Your task to perform on an android device: View the shopping cart on costco.com. Add "usb-c" to the cart on costco.com Image 0: 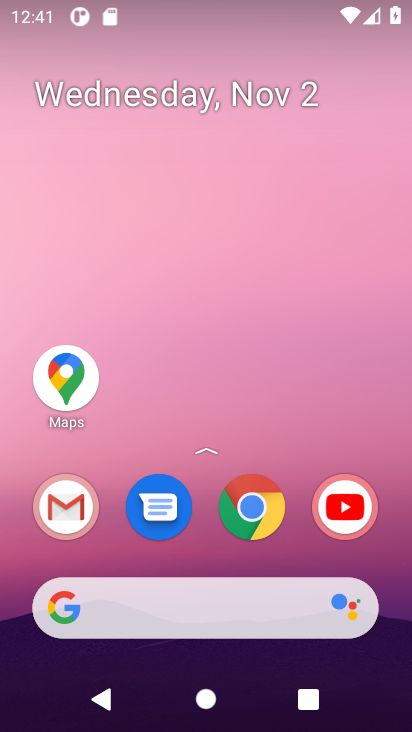
Step 0: click (240, 617)
Your task to perform on an android device: View the shopping cart on costco.com. Add "usb-c" to the cart on costco.com Image 1: 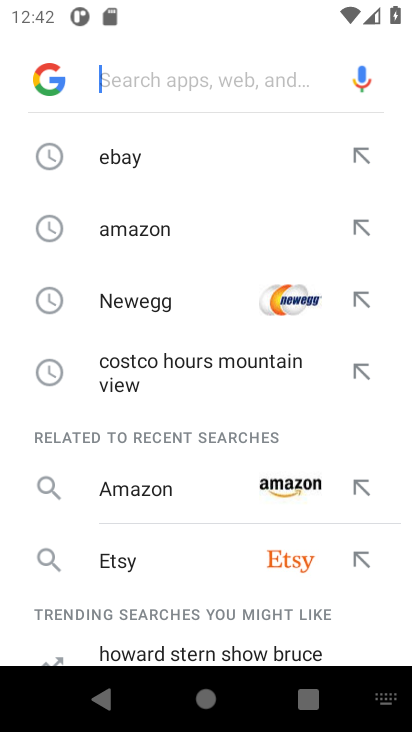
Step 1: type "costco.com"
Your task to perform on an android device: View the shopping cart on costco.com. Add "usb-c" to the cart on costco.com Image 2: 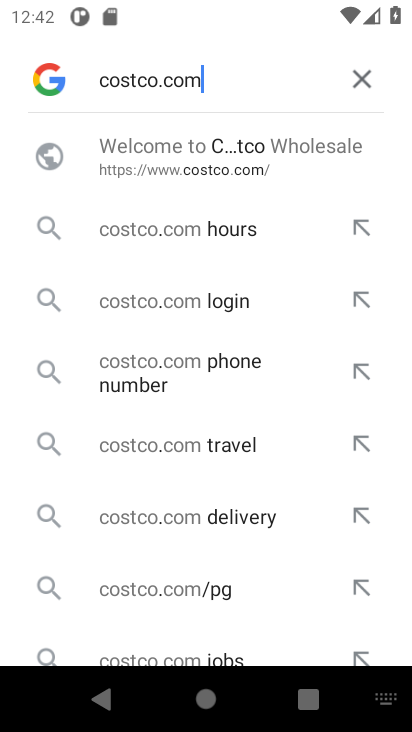
Step 2: click (207, 170)
Your task to perform on an android device: View the shopping cart on costco.com. Add "usb-c" to the cart on costco.com Image 3: 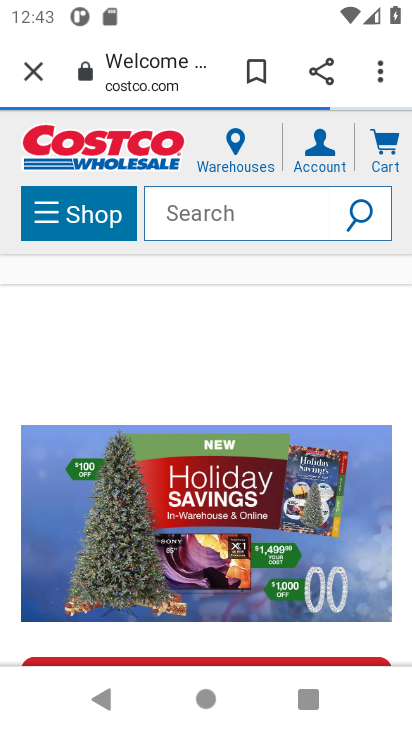
Step 3: click (275, 212)
Your task to perform on an android device: View the shopping cart on costco.com. Add "usb-c" to the cart on costco.com Image 4: 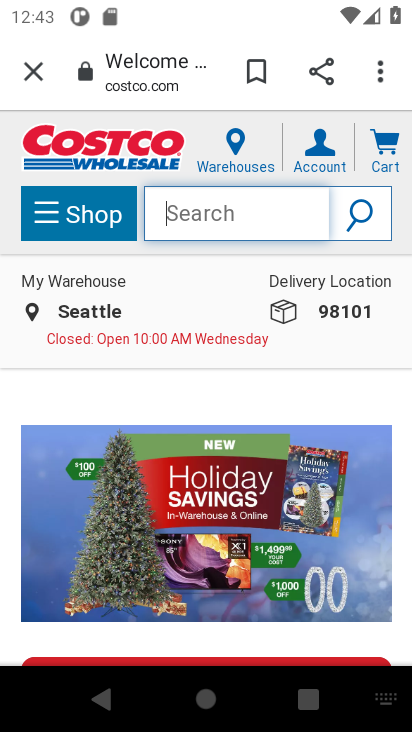
Step 4: type "usb-c"
Your task to perform on an android device: View the shopping cart on costco.com. Add "usb-c" to the cart on costco.com Image 5: 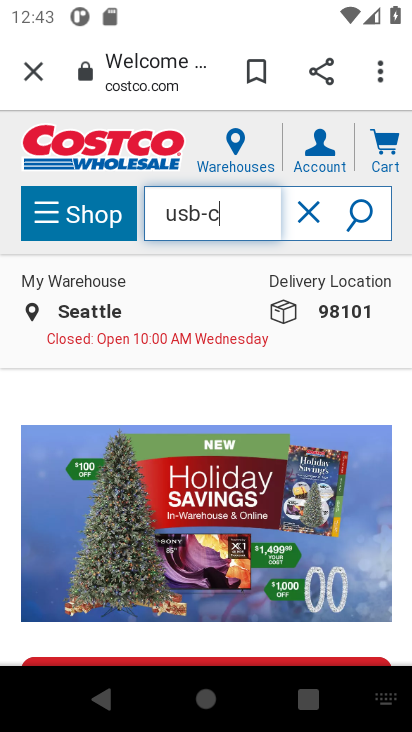
Step 5: type ""
Your task to perform on an android device: View the shopping cart on costco.com. Add "usb-c" to the cart on costco.com Image 6: 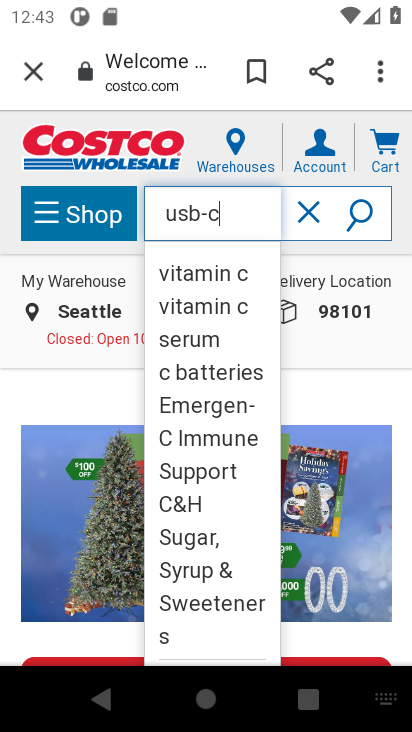
Step 6: click (362, 222)
Your task to perform on an android device: View the shopping cart on costco.com. Add "usb-c" to the cart on costco.com Image 7: 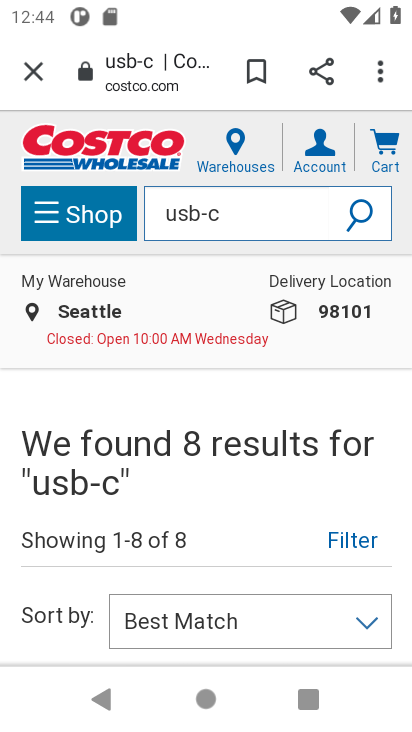
Step 7: drag from (243, 511) to (257, 260)
Your task to perform on an android device: View the shopping cart on costco.com. Add "usb-c" to the cart on costco.com Image 8: 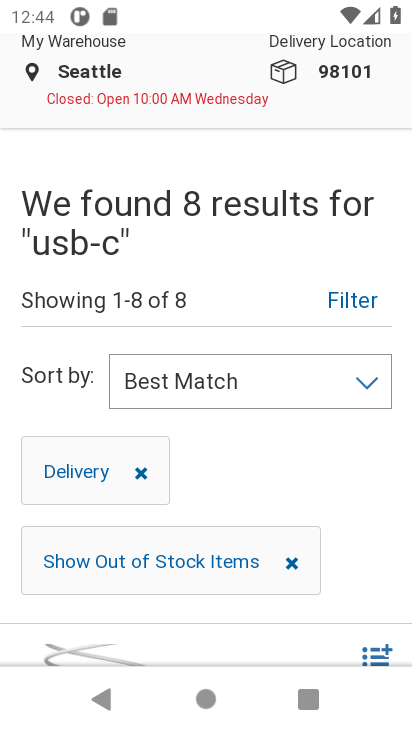
Step 8: click (267, 159)
Your task to perform on an android device: View the shopping cart on costco.com. Add "usb-c" to the cart on costco.com Image 9: 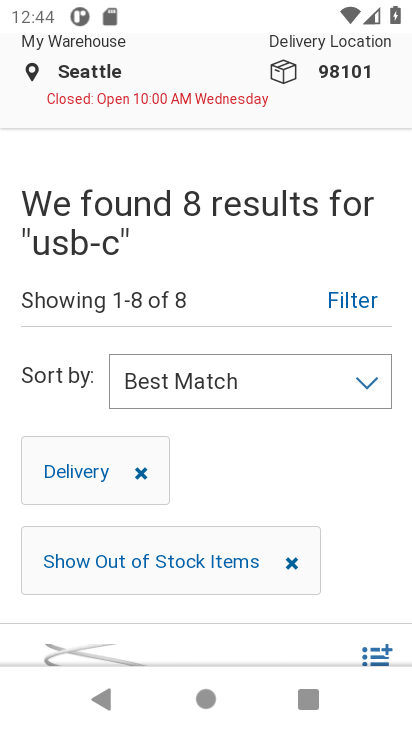
Step 9: drag from (266, 446) to (287, 163)
Your task to perform on an android device: View the shopping cart on costco.com. Add "usb-c" to the cart on costco.com Image 10: 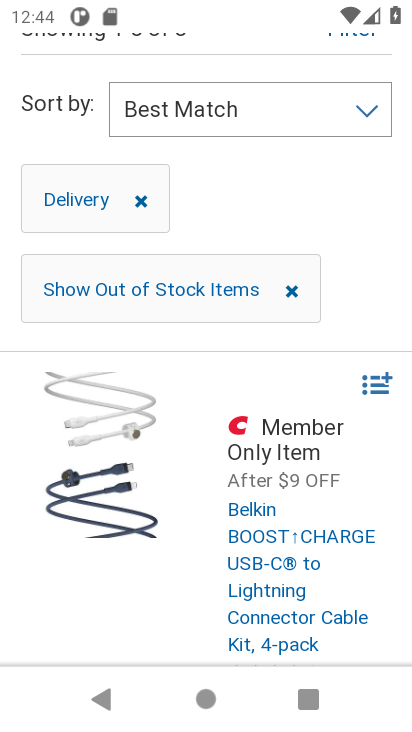
Step 10: drag from (328, 506) to (329, 225)
Your task to perform on an android device: View the shopping cart on costco.com. Add "usb-c" to the cart on costco.com Image 11: 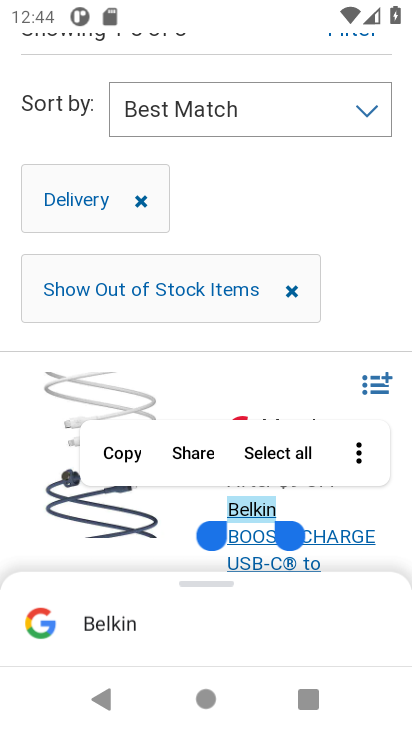
Step 11: click (360, 306)
Your task to perform on an android device: View the shopping cart on costco.com. Add "usb-c" to the cart on costco.com Image 12: 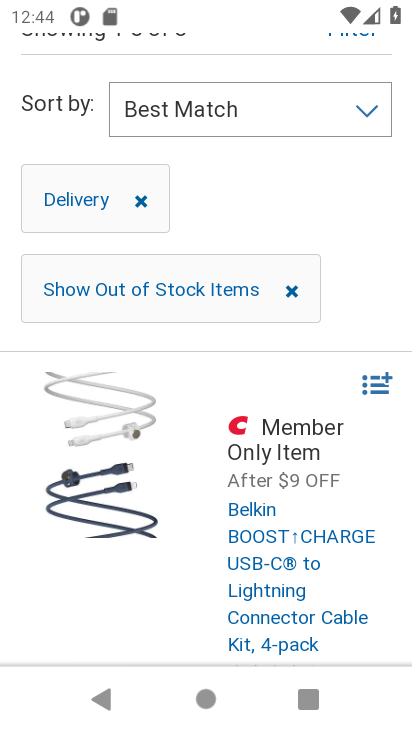
Step 12: click (274, 440)
Your task to perform on an android device: View the shopping cart on costco.com. Add "usb-c" to the cart on costco.com Image 13: 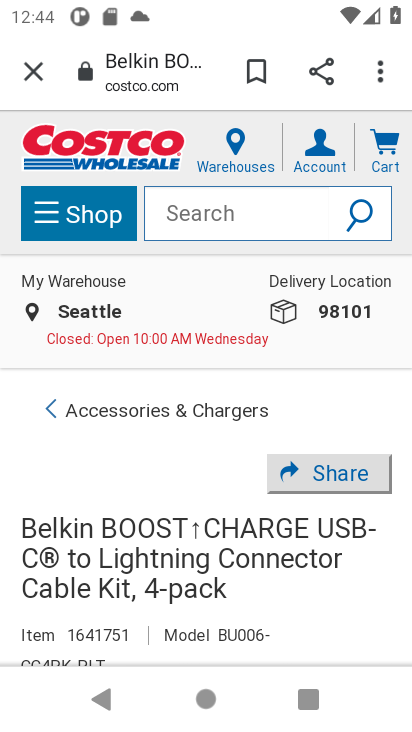
Step 13: drag from (174, 601) to (162, 311)
Your task to perform on an android device: View the shopping cart on costco.com. Add "usb-c" to the cart on costco.com Image 14: 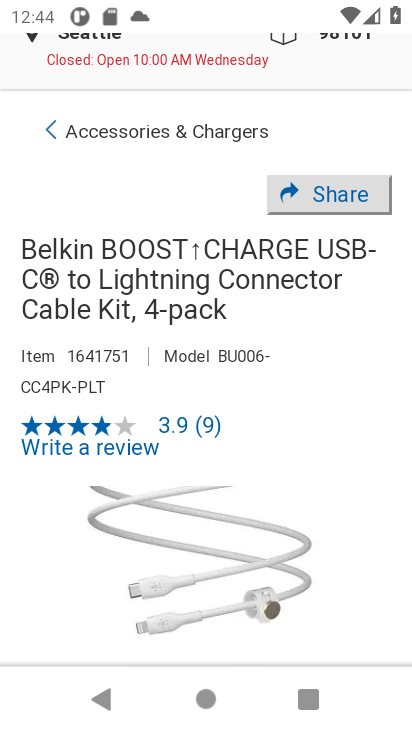
Step 14: drag from (211, 489) to (211, 271)
Your task to perform on an android device: View the shopping cart on costco.com. Add "usb-c" to the cart on costco.com Image 15: 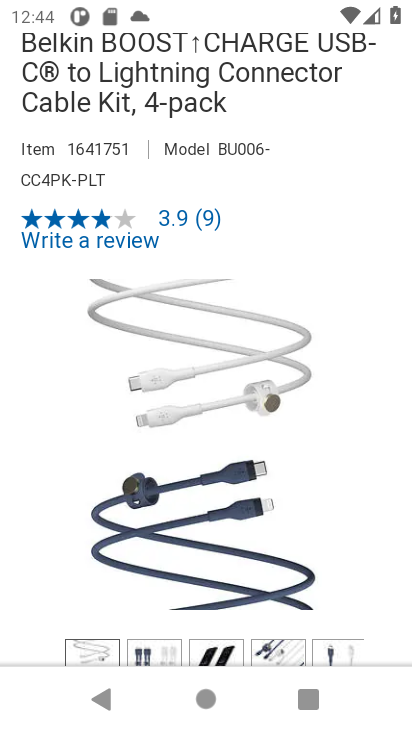
Step 15: drag from (243, 457) to (248, 154)
Your task to perform on an android device: View the shopping cart on costco.com. Add "usb-c" to the cart on costco.com Image 16: 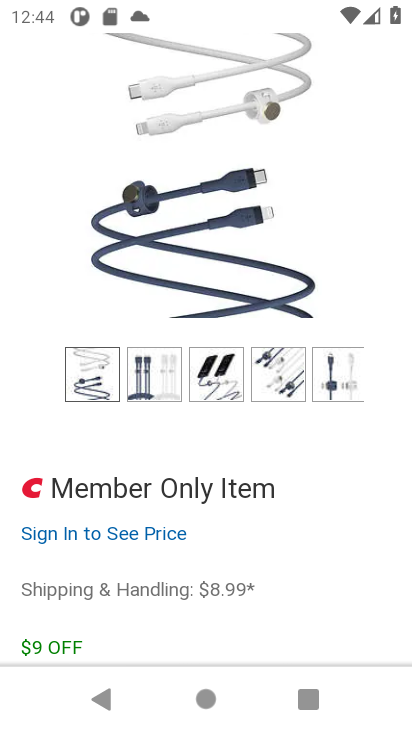
Step 16: drag from (227, 532) to (212, 191)
Your task to perform on an android device: View the shopping cart on costco.com. Add "usb-c" to the cart on costco.com Image 17: 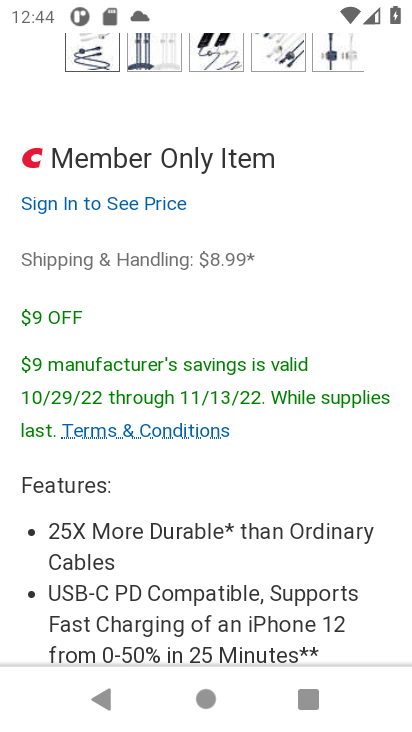
Step 17: drag from (194, 458) to (190, 161)
Your task to perform on an android device: View the shopping cart on costco.com. Add "usb-c" to the cart on costco.com Image 18: 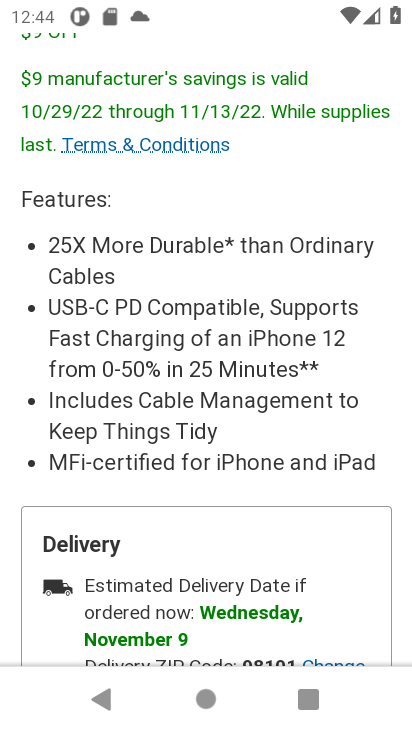
Step 18: drag from (212, 487) to (230, 205)
Your task to perform on an android device: View the shopping cart on costco.com. Add "usb-c" to the cart on costco.com Image 19: 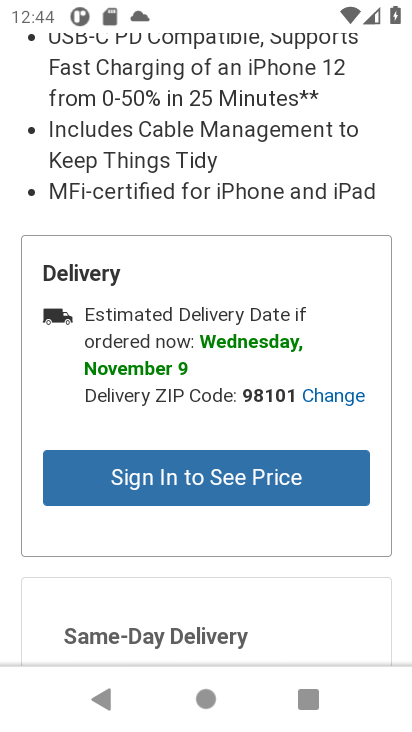
Step 19: drag from (272, 556) to (241, 201)
Your task to perform on an android device: View the shopping cart on costco.com. Add "usb-c" to the cart on costco.com Image 20: 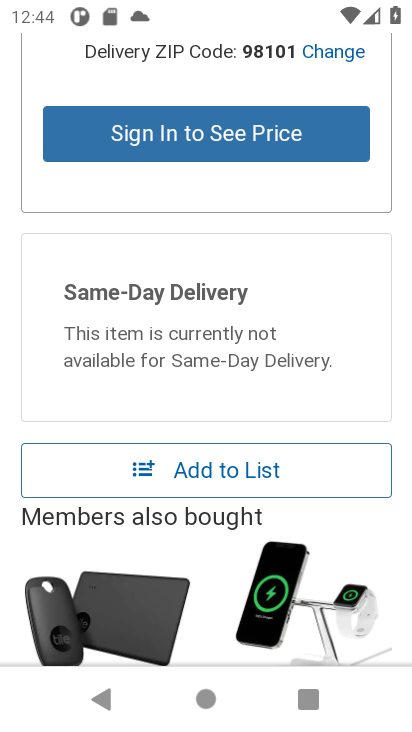
Step 20: drag from (287, 358) to (308, 127)
Your task to perform on an android device: View the shopping cart on costco.com. Add "usb-c" to the cart on costco.com Image 21: 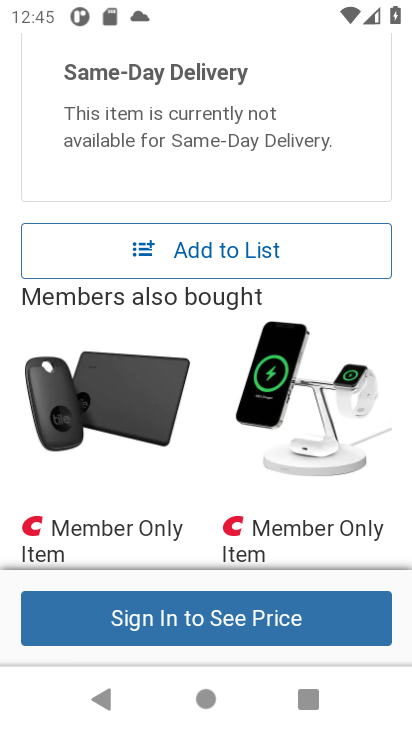
Step 21: click (235, 627)
Your task to perform on an android device: View the shopping cart on costco.com. Add "usb-c" to the cart on costco.com Image 22: 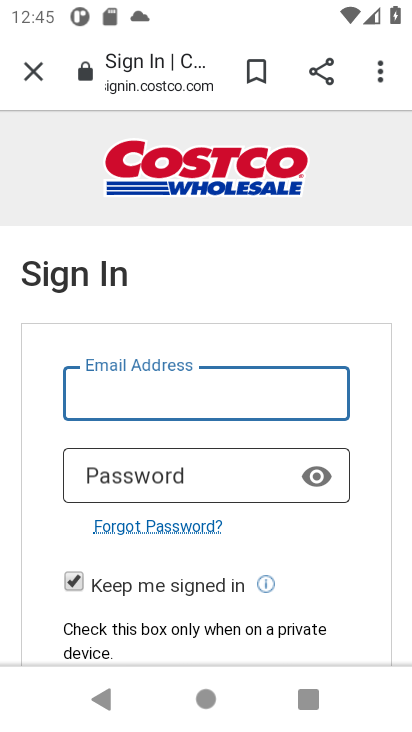
Step 22: task complete